Your task to perform on an android device: Open wifi settings Image 0: 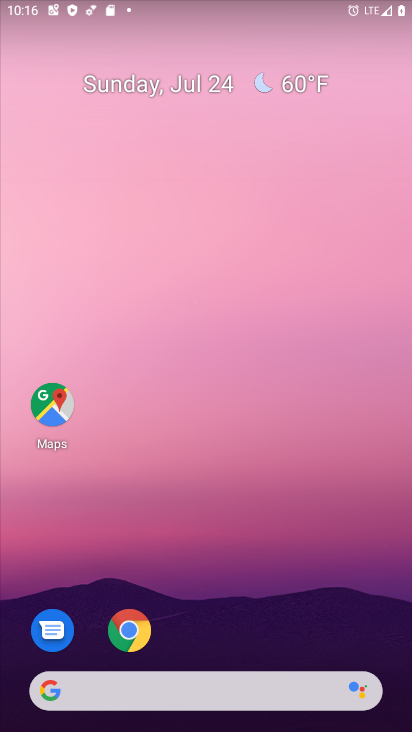
Step 0: drag from (218, 634) to (196, 203)
Your task to perform on an android device: Open wifi settings Image 1: 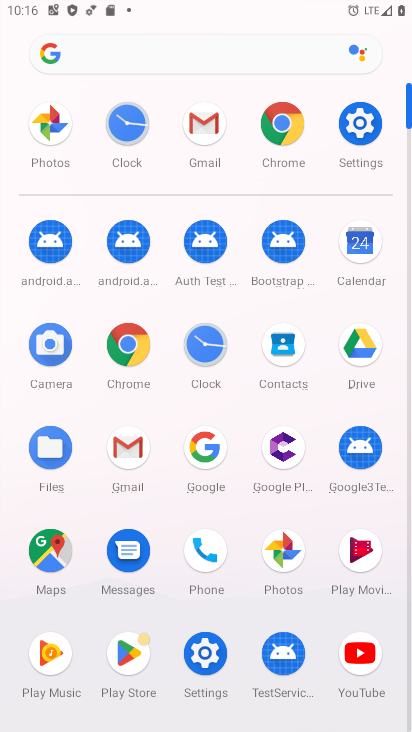
Step 1: click (365, 142)
Your task to perform on an android device: Open wifi settings Image 2: 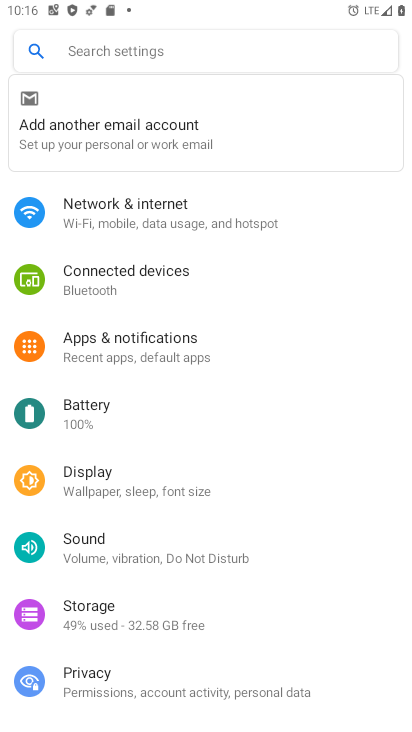
Step 2: click (161, 211)
Your task to perform on an android device: Open wifi settings Image 3: 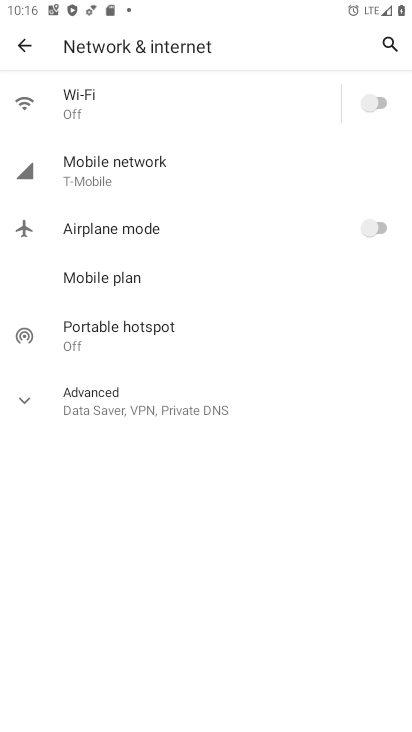
Step 3: click (113, 109)
Your task to perform on an android device: Open wifi settings Image 4: 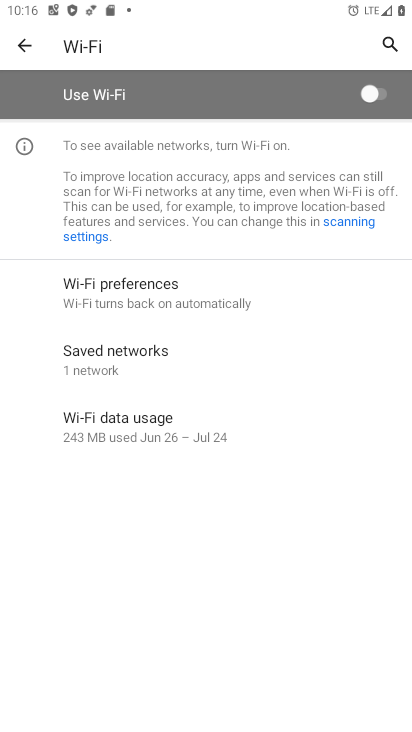
Step 4: task complete